Your task to perform on an android device: turn on improve location accuracy Image 0: 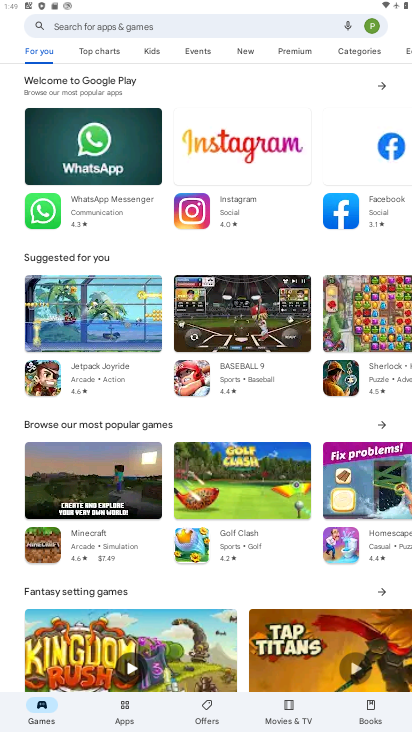
Step 0: press home button
Your task to perform on an android device: turn on improve location accuracy Image 1: 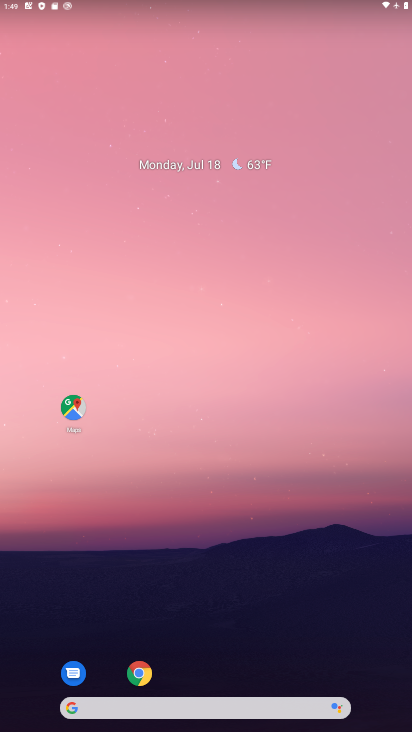
Step 1: drag from (273, 677) to (264, 140)
Your task to perform on an android device: turn on improve location accuracy Image 2: 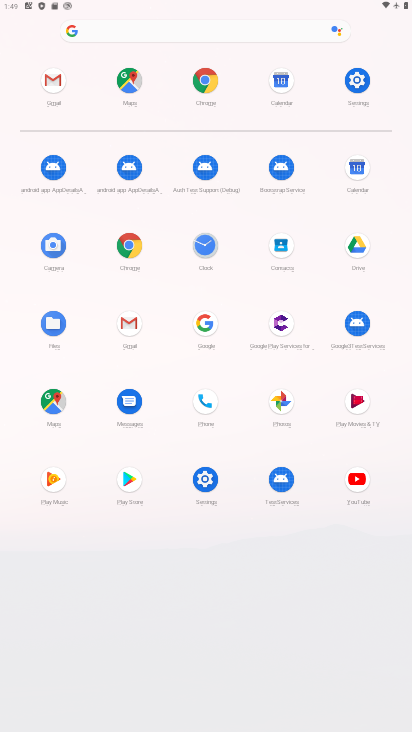
Step 2: click (352, 76)
Your task to perform on an android device: turn on improve location accuracy Image 3: 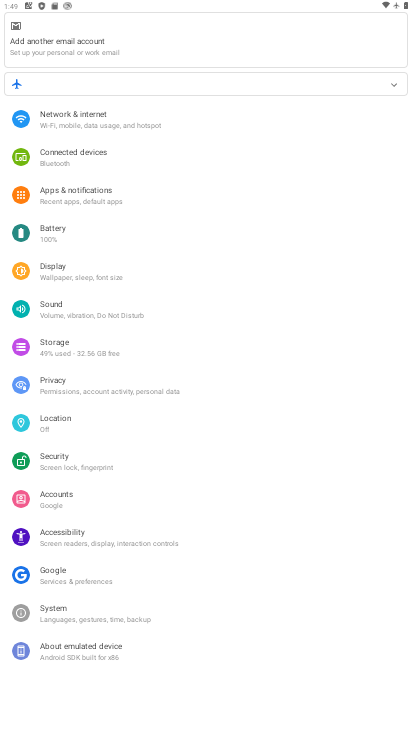
Step 3: click (49, 428)
Your task to perform on an android device: turn on improve location accuracy Image 4: 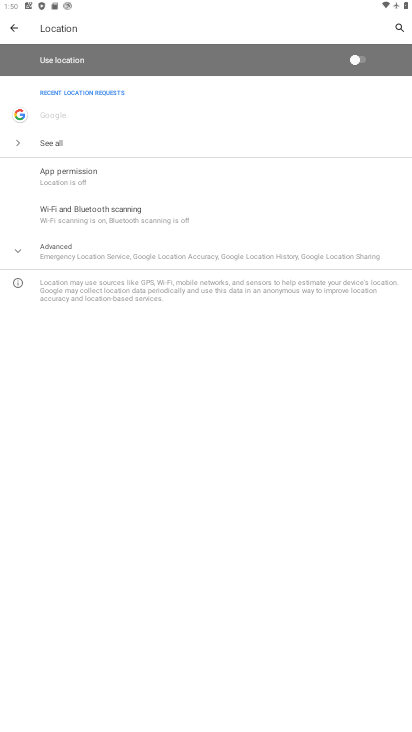
Step 4: click (138, 254)
Your task to perform on an android device: turn on improve location accuracy Image 5: 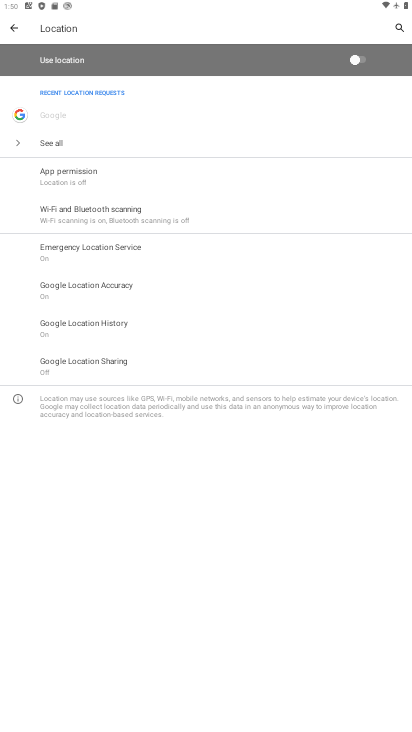
Step 5: click (127, 278)
Your task to perform on an android device: turn on improve location accuracy Image 6: 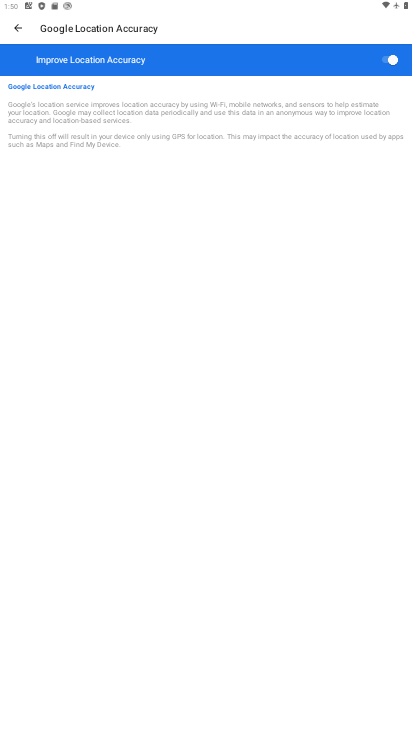
Step 6: task complete